Your task to perform on an android device: turn off location Image 0: 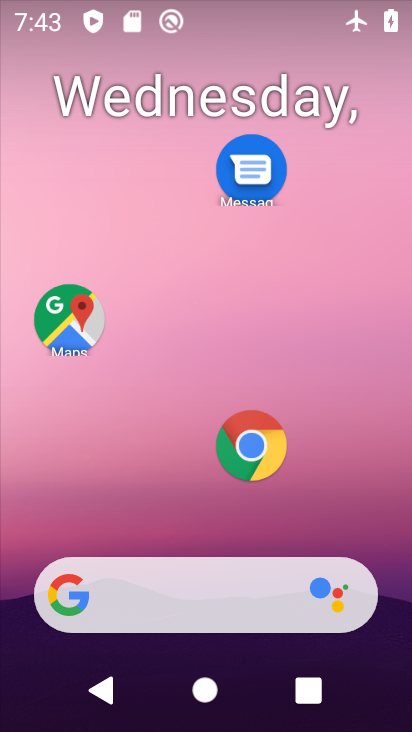
Step 0: click (225, 141)
Your task to perform on an android device: turn off location Image 1: 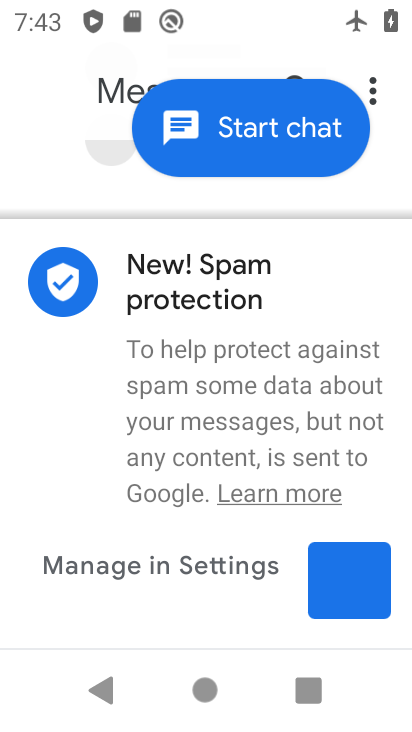
Step 1: press back button
Your task to perform on an android device: turn off location Image 2: 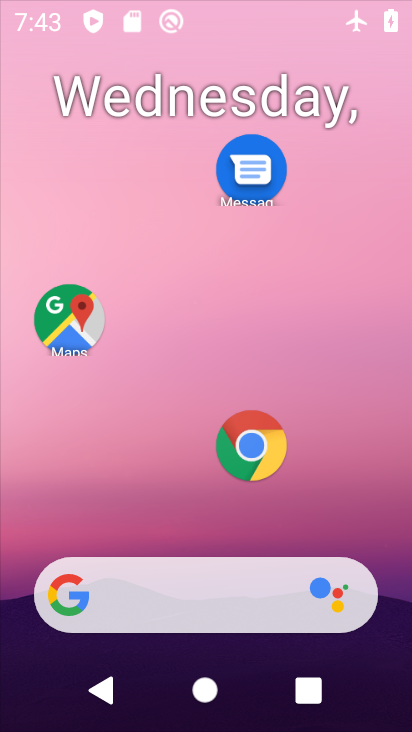
Step 2: press back button
Your task to perform on an android device: turn off location Image 3: 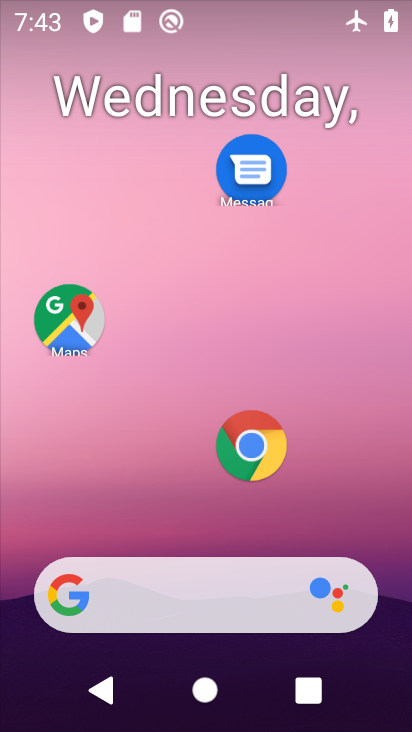
Step 3: drag from (253, 692) to (193, 10)
Your task to perform on an android device: turn off location Image 4: 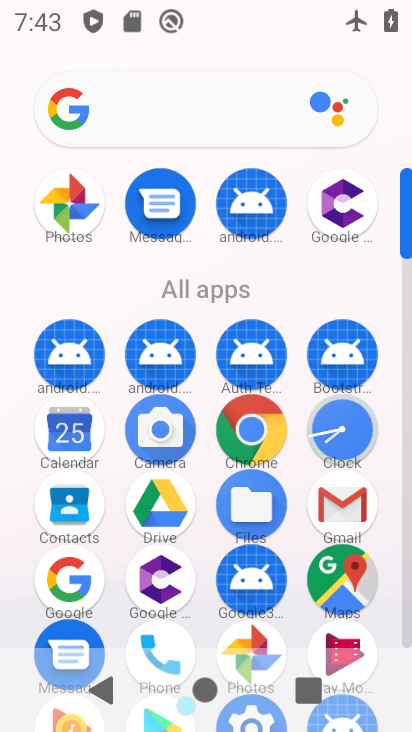
Step 4: drag from (215, 576) to (169, 202)
Your task to perform on an android device: turn off location Image 5: 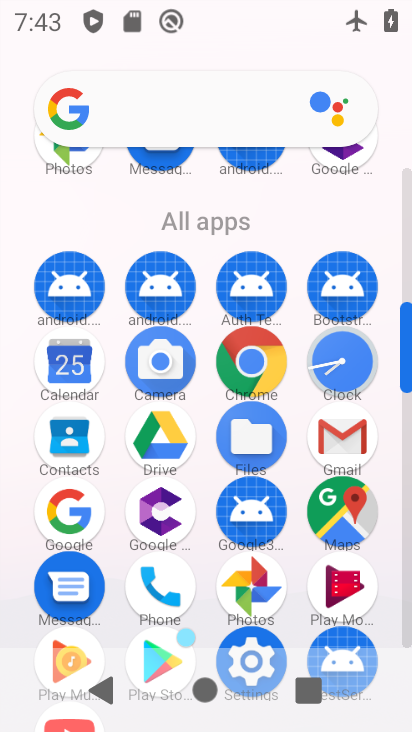
Step 5: drag from (165, 513) to (165, 39)
Your task to perform on an android device: turn off location Image 6: 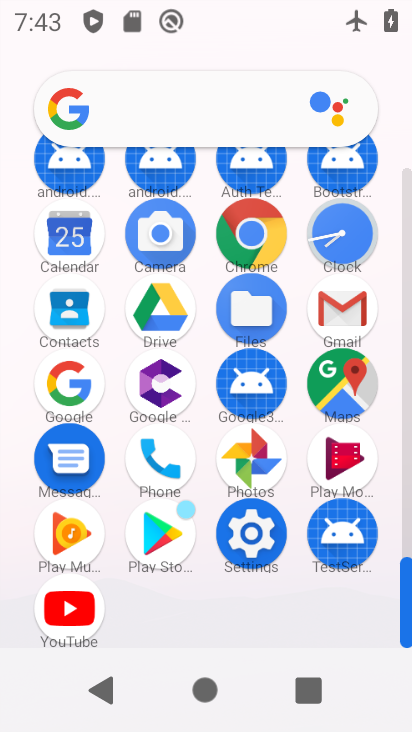
Step 6: click (260, 535)
Your task to perform on an android device: turn off location Image 7: 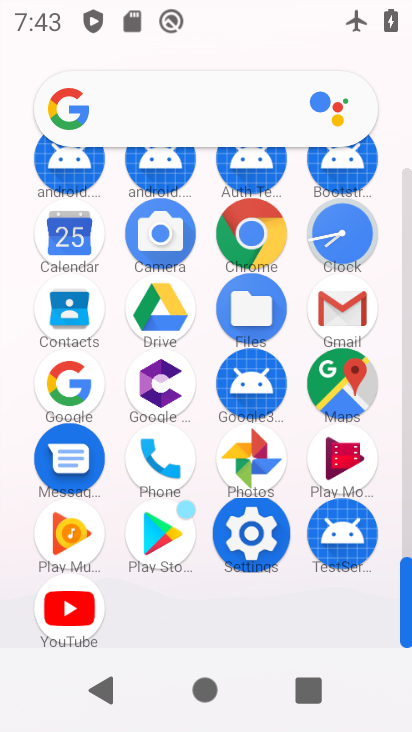
Step 7: click (262, 530)
Your task to perform on an android device: turn off location Image 8: 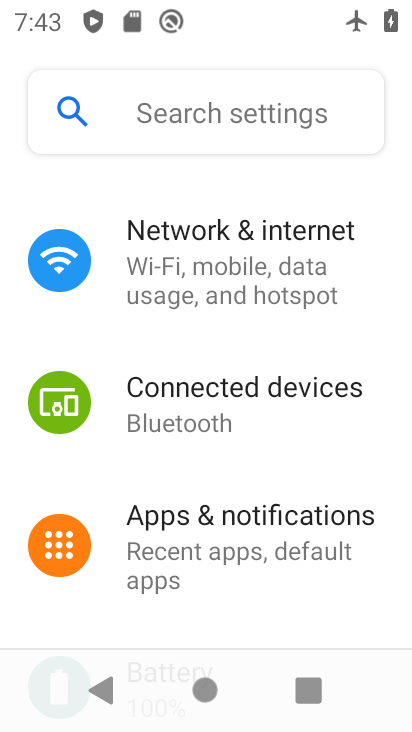
Step 8: click (294, 576)
Your task to perform on an android device: turn off location Image 9: 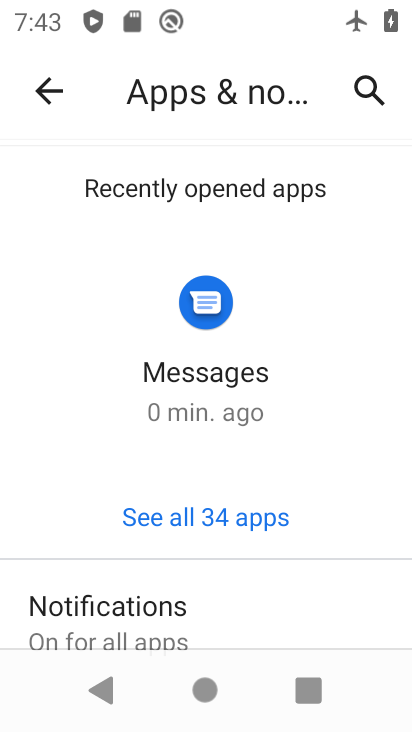
Step 9: click (39, 86)
Your task to perform on an android device: turn off location Image 10: 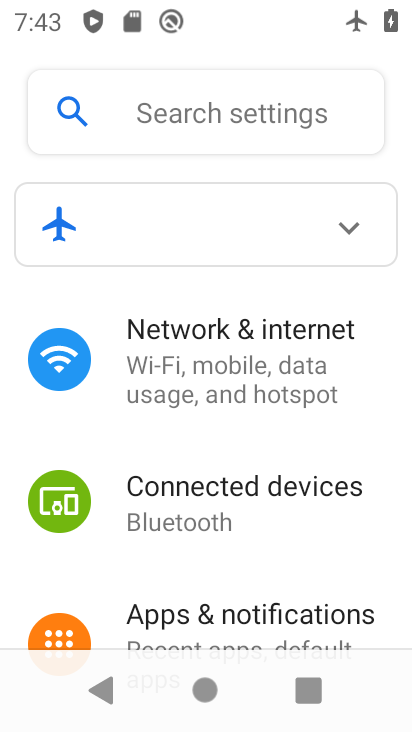
Step 10: drag from (277, 547) to (186, 194)
Your task to perform on an android device: turn off location Image 11: 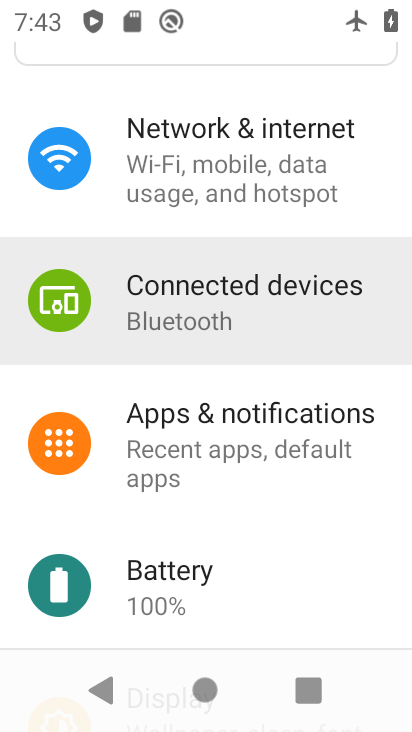
Step 11: drag from (234, 516) to (189, 193)
Your task to perform on an android device: turn off location Image 12: 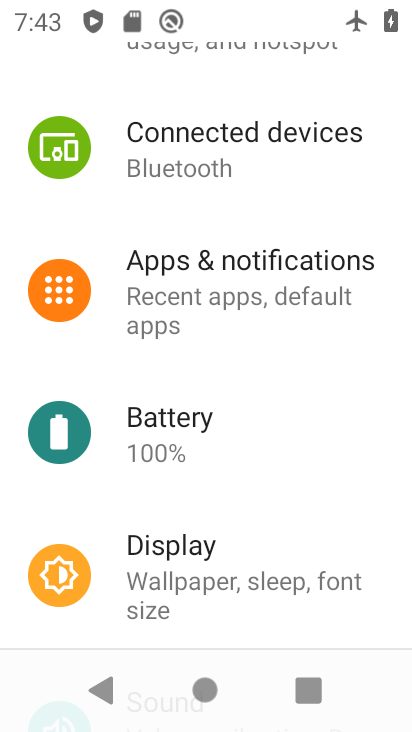
Step 12: drag from (217, 494) to (179, 178)
Your task to perform on an android device: turn off location Image 13: 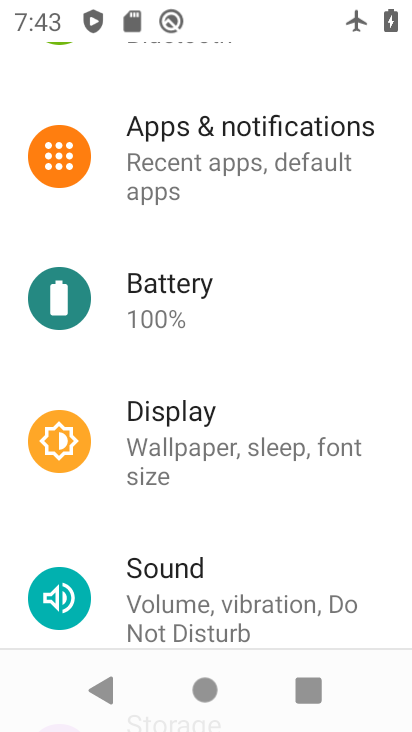
Step 13: drag from (236, 483) to (159, 267)
Your task to perform on an android device: turn off location Image 14: 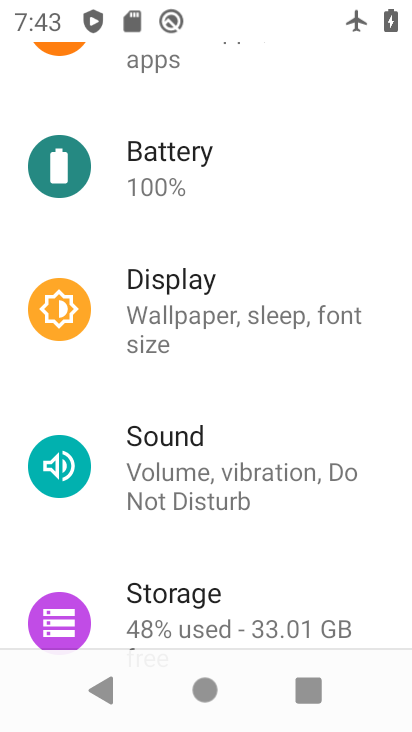
Step 14: drag from (244, 505) to (191, 188)
Your task to perform on an android device: turn off location Image 15: 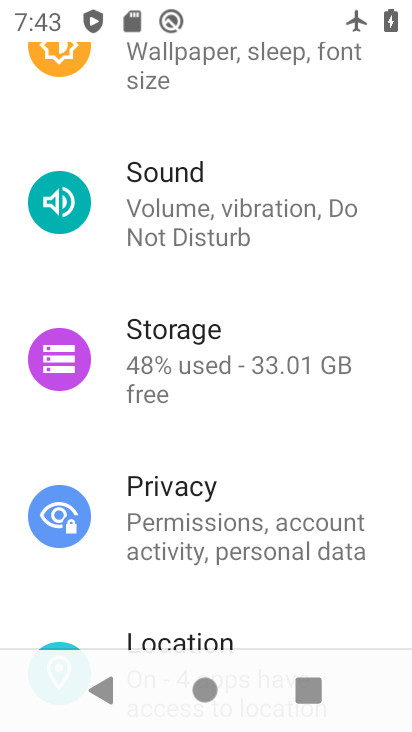
Step 15: drag from (233, 430) to (222, 140)
Your task to perform on an android device: turn off location Image 16: 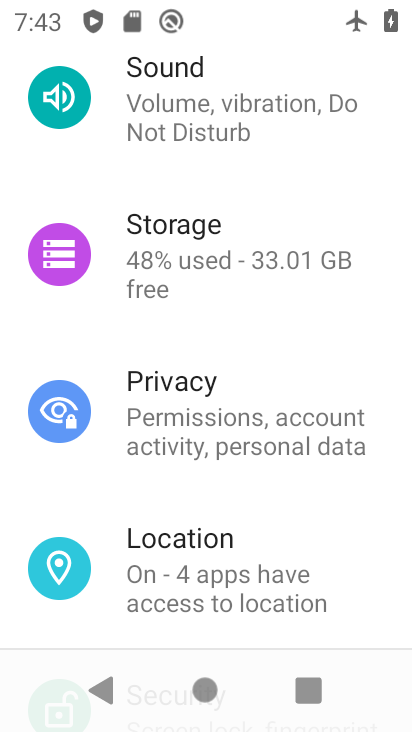
Step 16: drag from (282, 375) to (282, 199)
Your task to perform on an android device: turn off location Image 17: 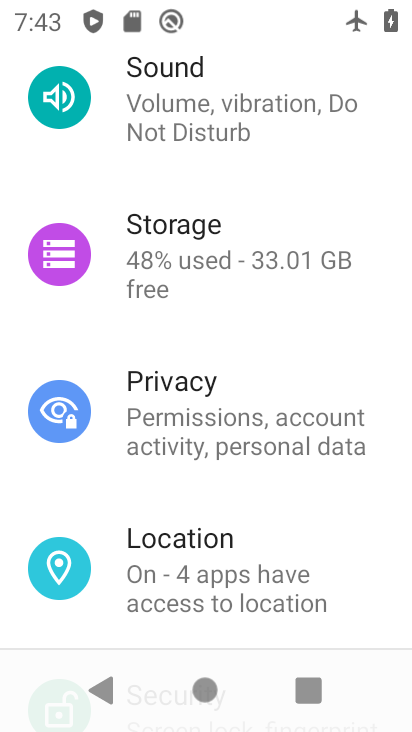
Step 17: click (209, 571)
Your task to perform on an android device: turn off location Image 18: 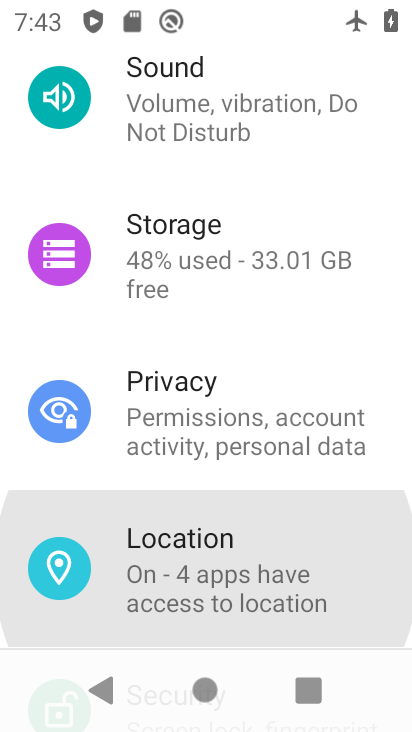
Step 18: click (208, 572)
Your task to perform on an android device: turn off location Image 19: 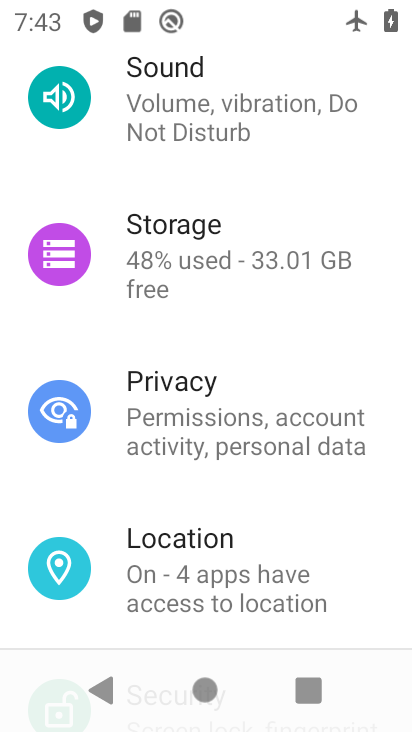
Step 19: click (208, 572)
Your task to perform on an android device: turn off location Image 20: 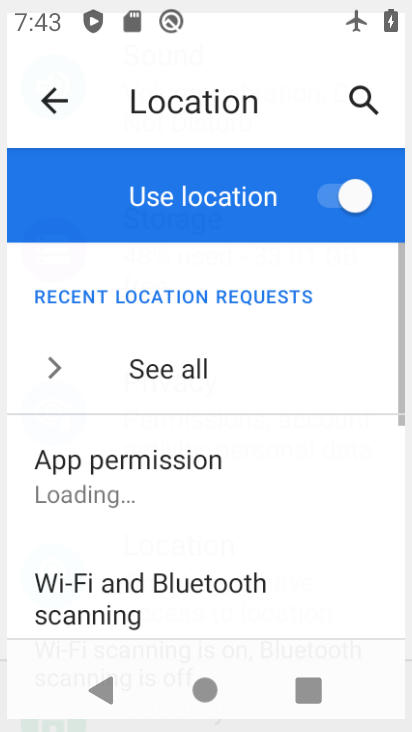
Step 20: click (207, 573)
Your task to perform on an android device: turn off location Image 21: 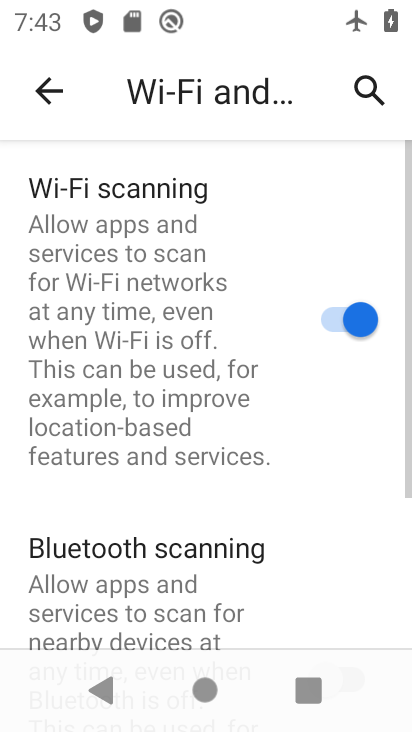
Step 21: drag from (209, 488) to (151, 45)
Your task to perform on an android device: turn off location Image 22: 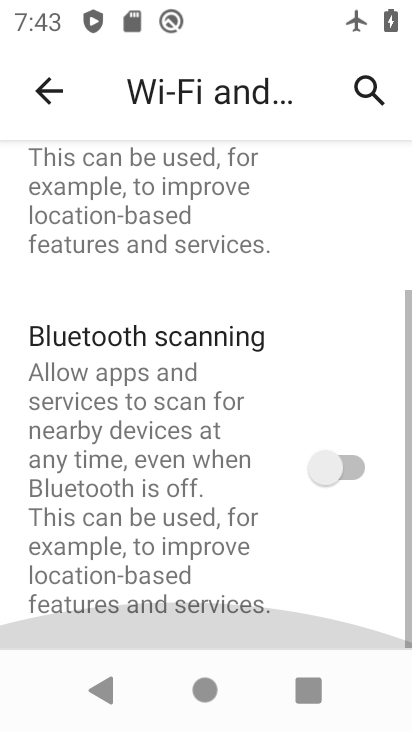
Step 22: drag from (261, 474) to (195, 27)
Your task to perform on an android device: turn off location Image 23: 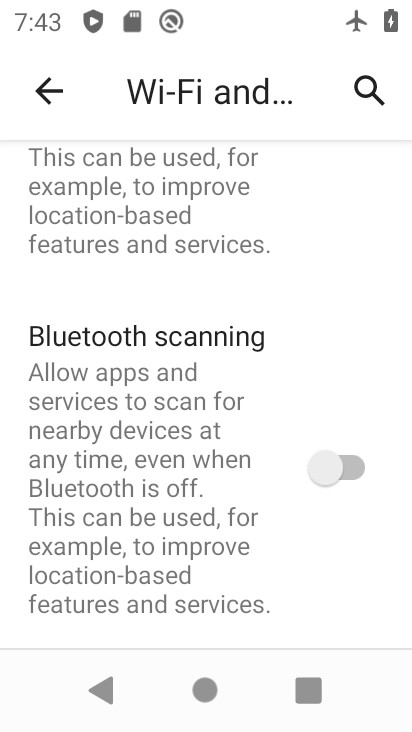
Step 23: click (37, 96)
Your task to perform on an android device: turn off location Image 24: 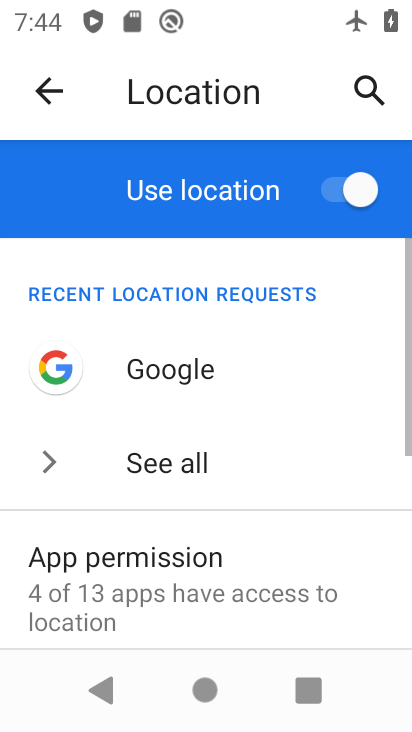
Step 24: drag from (180, 528) to (129, 177)
Your task to perform on an android device: turn off location Image 25: 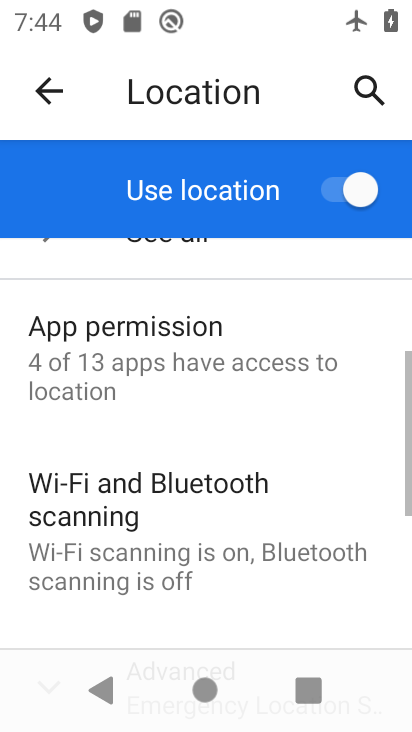
Step 25: drag from (186, 494) to (166, 160)
Your task to perform on an android device: turn off location Image 26: 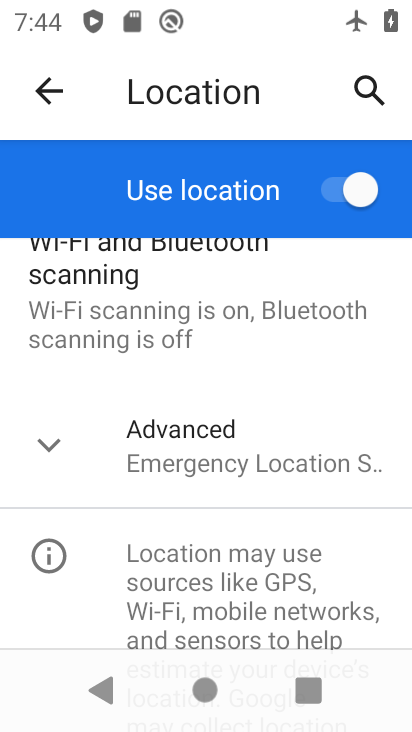
Step 26: click (188, 449)
Your task to perform on an android device: turn off location Image 27: 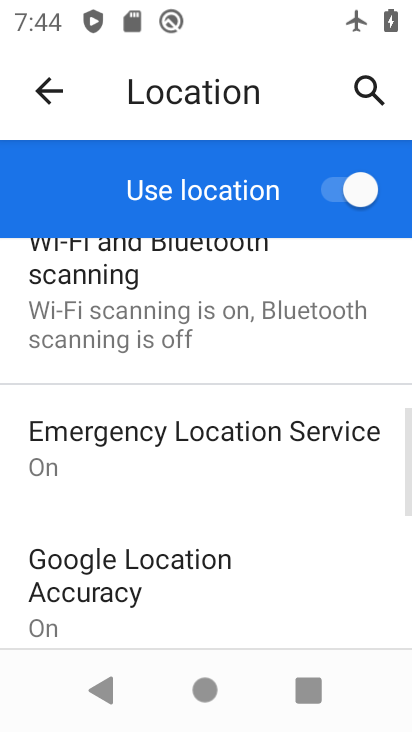
Step 27: click (365, 193)
Your task to perform on an android device: turn off location Image 28: 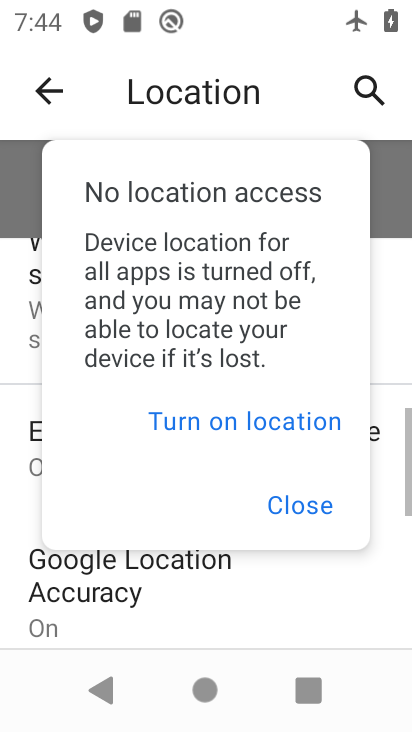
Step 28: task complete